Your task to perform on an android device: turn on notifications settings in the gmail app Image 0: 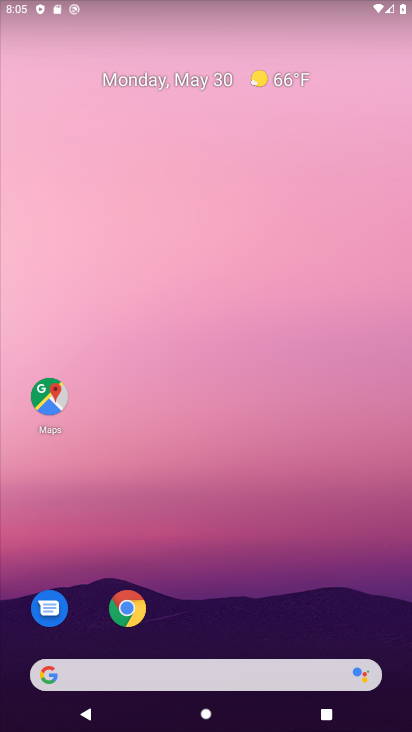
Step 0: drag from (224, 728) to (235, 427)
Your task to perform on an android device: turn on notifications settings in the gmail app Image 1: 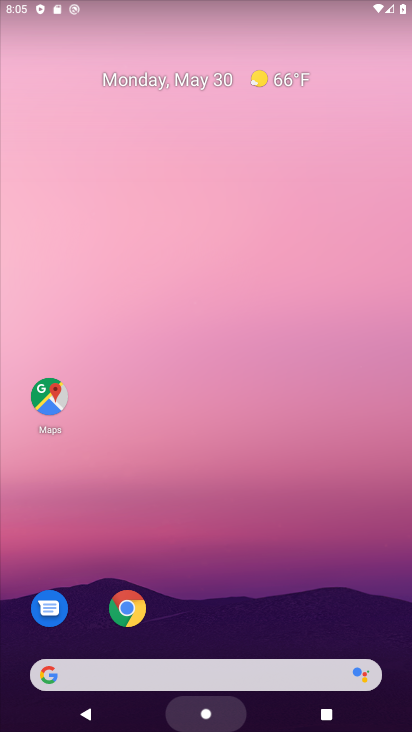
Step 1: click (230, 33)
Your task to perform on an android device: turn on notifications settings in the gmail app Image 2: 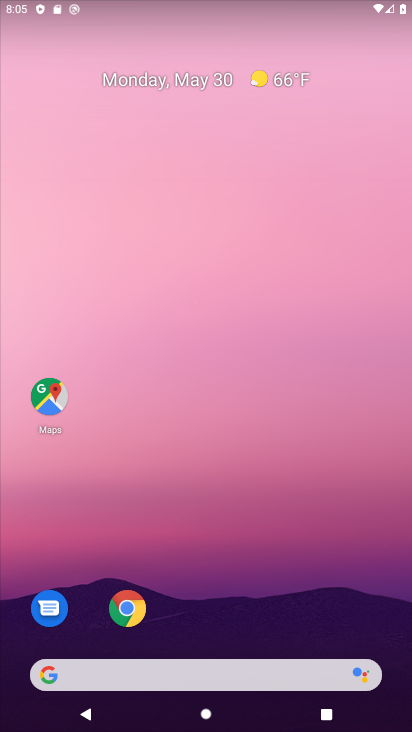
Step 2: drag from (229, 669) to (244, 1)
Your task to perform on an android device: turn on notifications settings in the gmail app Image 3: 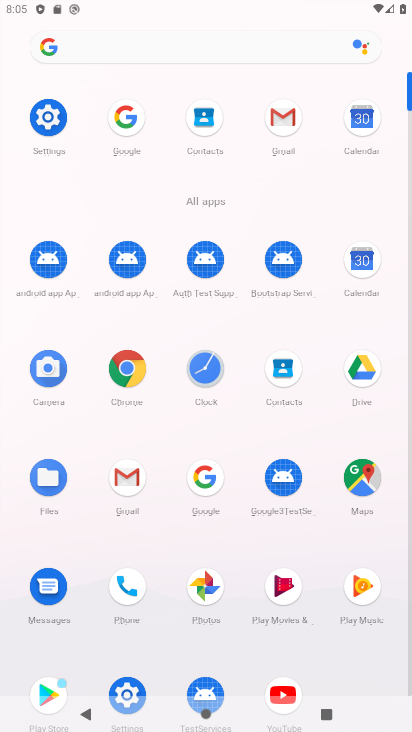
Step 3: click (277, 121)
Your task to perform on an android device: turn on notifications settings in the gmail app Image 4: 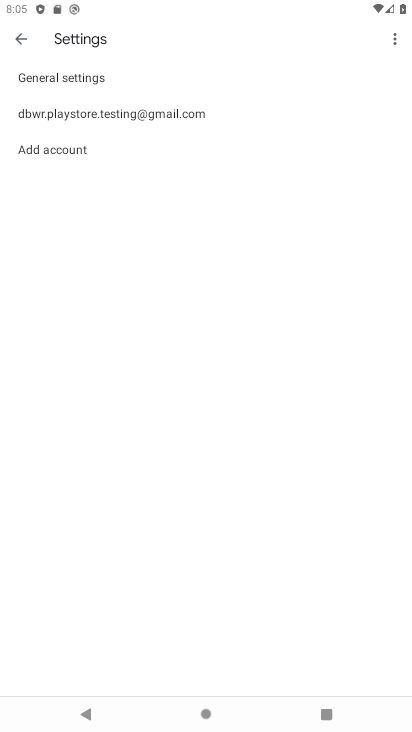
Step 4: click (180, 114)
Your task to perform on an android device: turn on notifications settings in the gmail app Image 5: 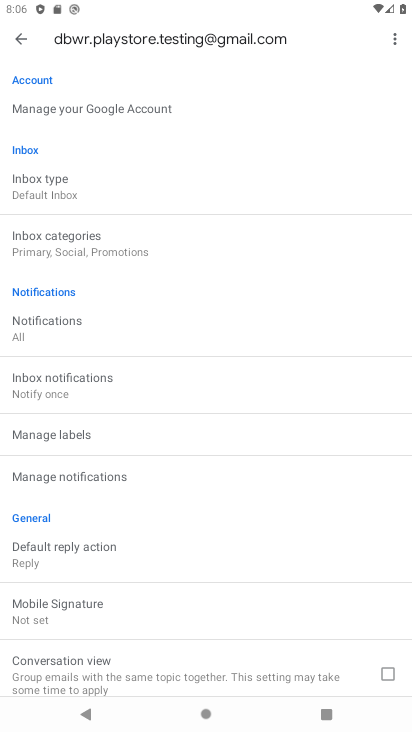
Step 5: task complete